Your task to perform on an android device: Search for Mexican restaurants on Maps Image 0: 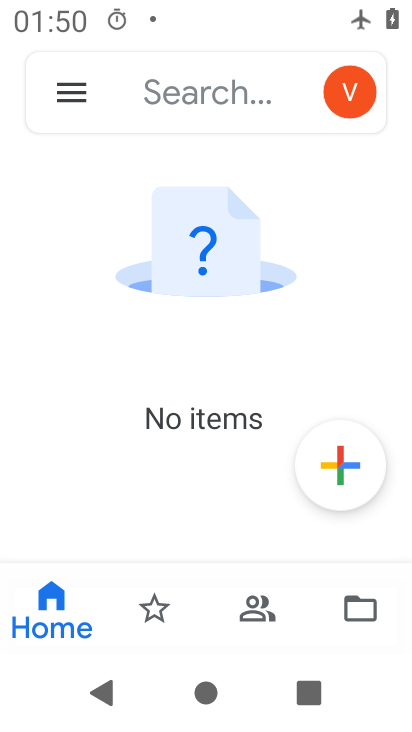
Step 0: press home button
Your task to perform on an android device: Search for Mexican restaurants on Maps Image 1: 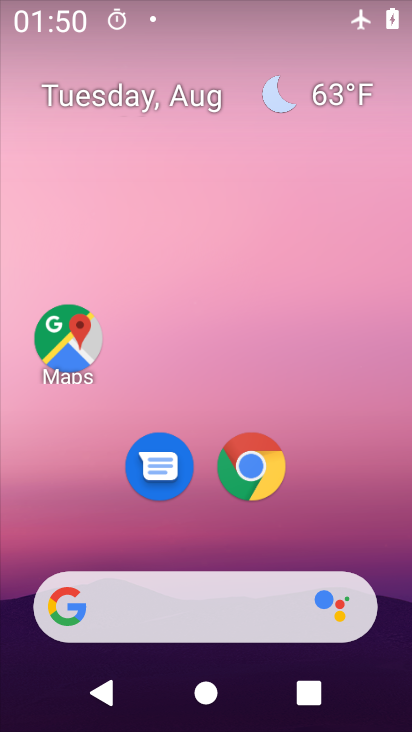
Step 1: drag from (377, 563) to (395, 171)
Your task to perform on an android device: Search for Mexican restaurants on Maps Image 2: 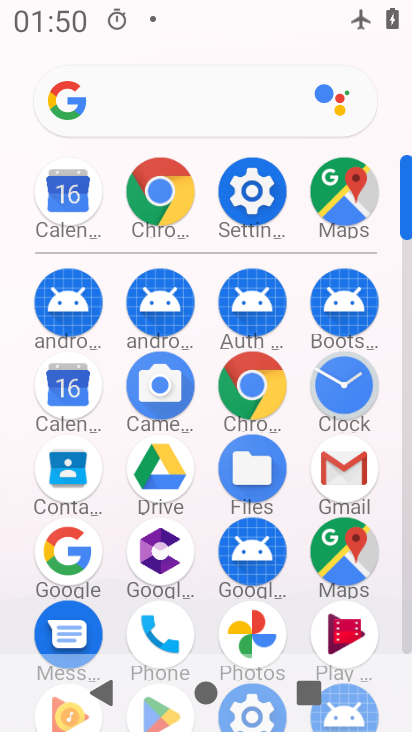
Step 2: click (353, 557)
Your task to perform on an android device: Search for Mexican restaurants on Maps Image 3: 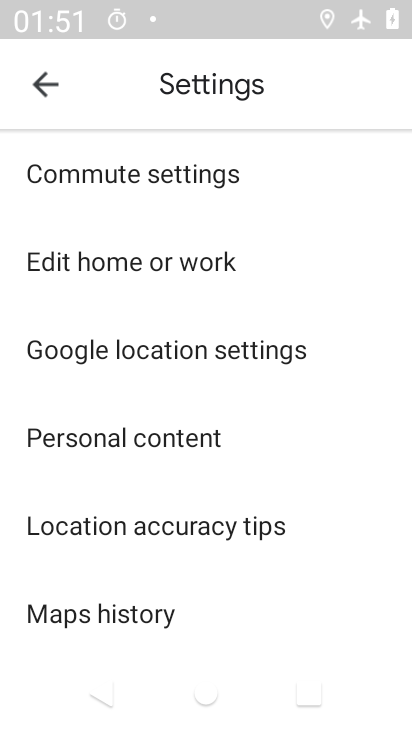
Step 3: press back button
Your task to perform on an android device: Search for Mexican restaurants on Maps Image 4: 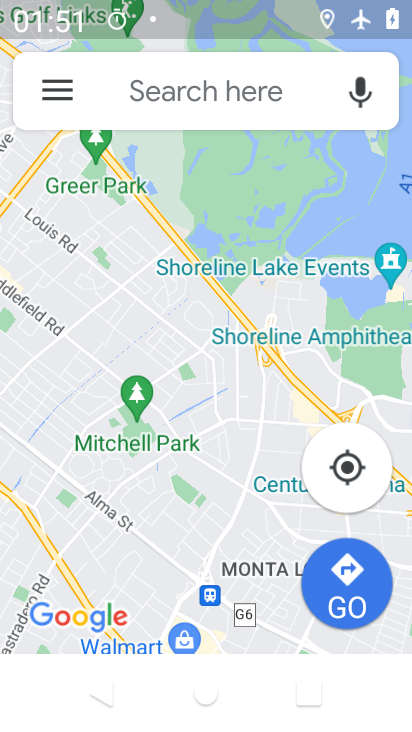
Step 4: click (180, 104)
Your task to perform on an android device: Search for Mexican restaurants on Maps Image 5: 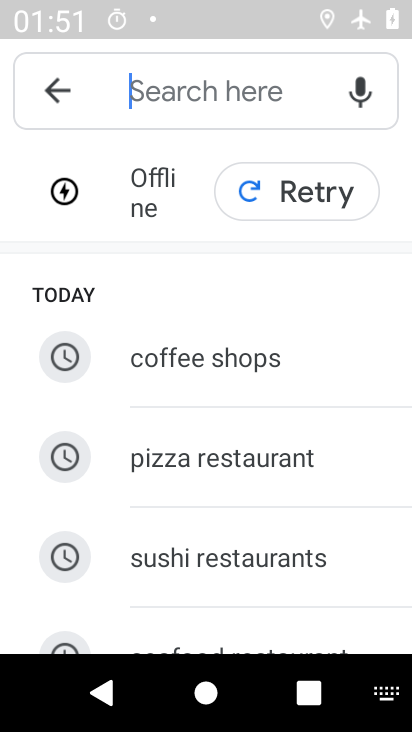
Step 5: type "mexcian restaurants"
Your task to perform on an android device: Search for Mexican restaurants on Maps Image 6: 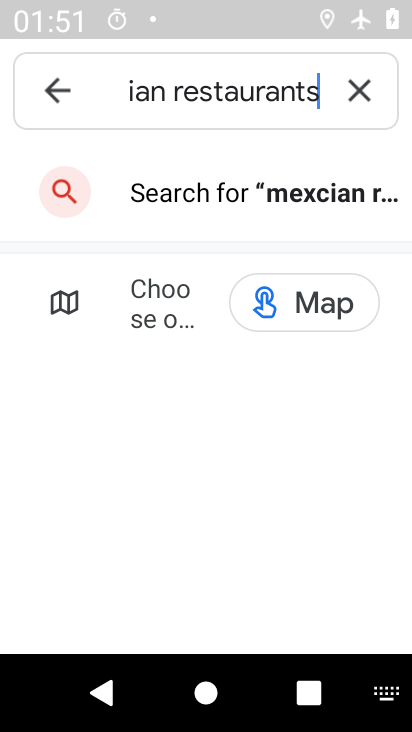
Step 6: click (316, 199)
Your task to perform on an android device: Search for Mexican restaurants on Maps Image 7: 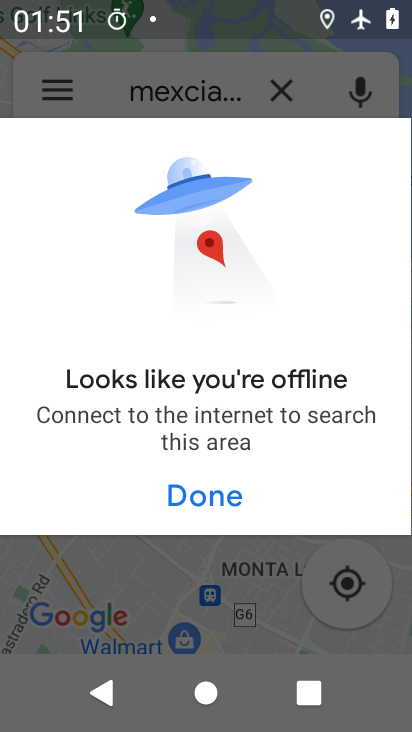
Step 7: task complete